Your task to perform on an android device: turn off wifi Image 0: 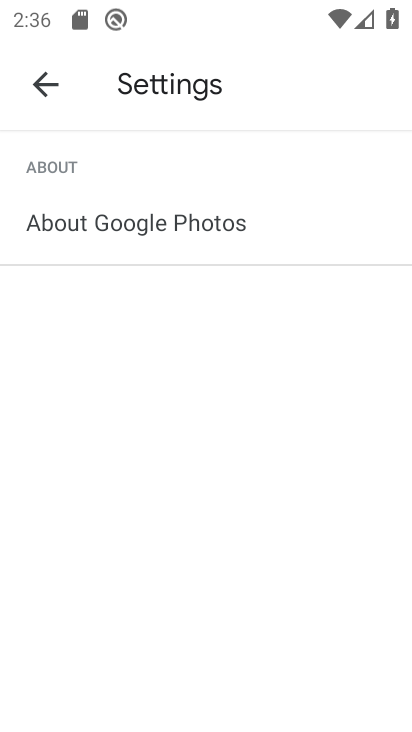
Step 0: press home button
Your task to perform on an android device: turn off wifi Image 1: 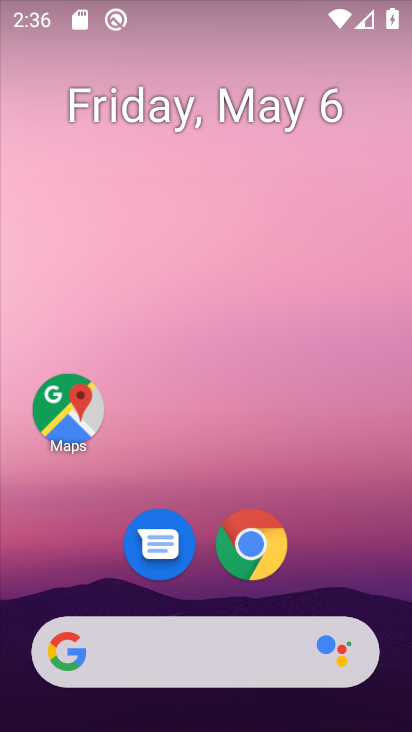
Step 1: drag from (402, 537) to (397, 167)
Your task to perform on an android device: turn off wifi Image 2: 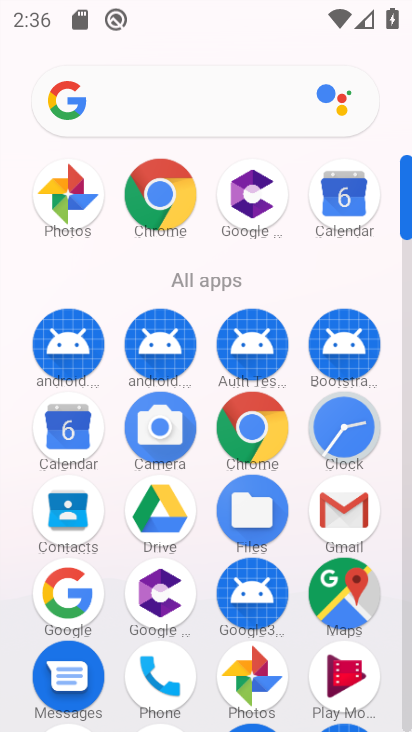
Step 2: drag from (400, 169) to (406, 82)
Your task to perform on an android device: turn off wifi Image 3: 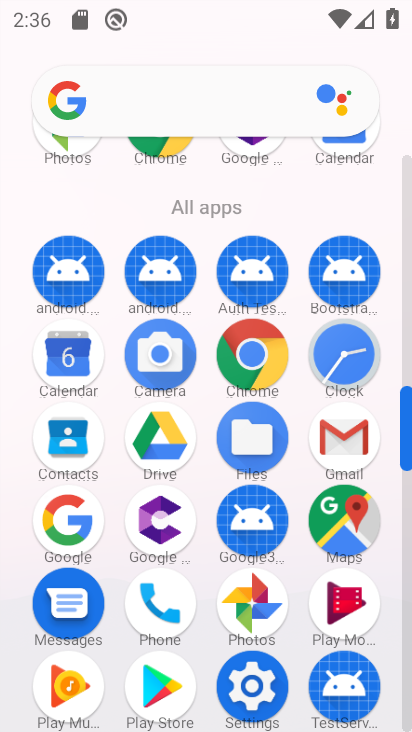
Step 3: drag from (404, 223) to (402, 110)
Your task to perform on an android device: turn off wifi Image 4: 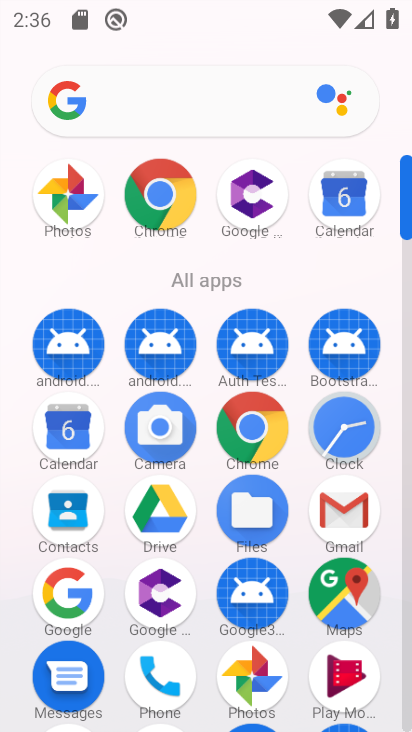
Step 4: click (251, 722)
Your task to perform on an android device: turn off wifi Image 5: 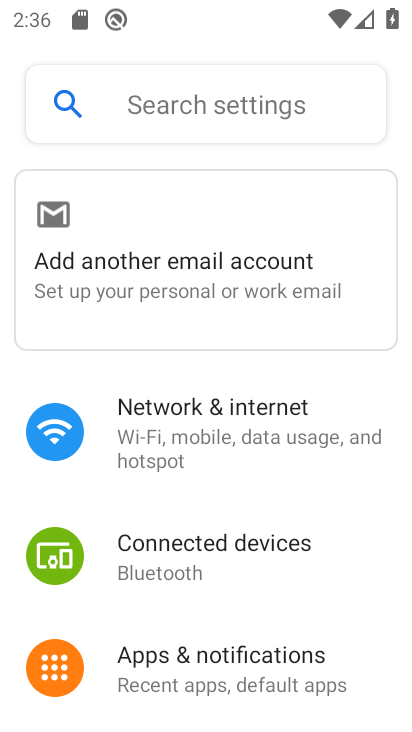
Step 5: click (167, 428)
Your task to perform on an android device: turn off wifi Image 6: 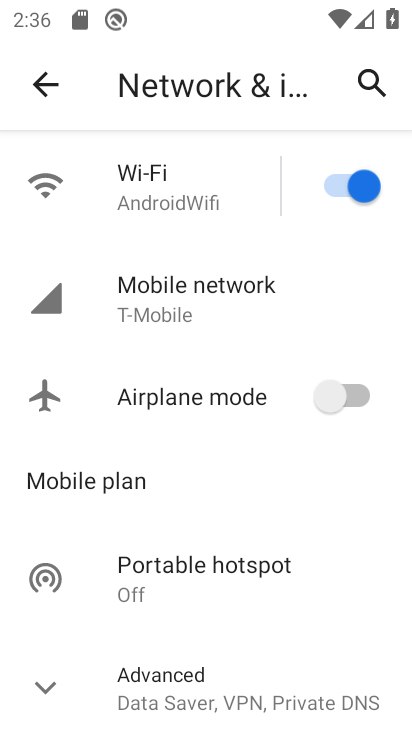
Step 6: click (334, 183)
Your task to perform on an android device: turn off wifi Image 7: 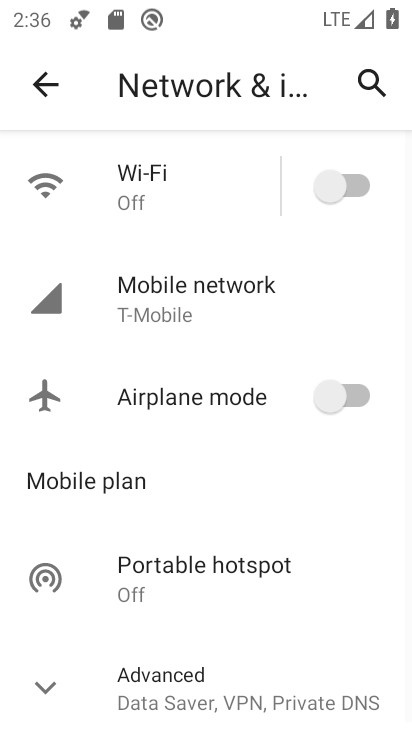
Step 7: task complete